Your task to perform on an android device: add a contact Image 0: 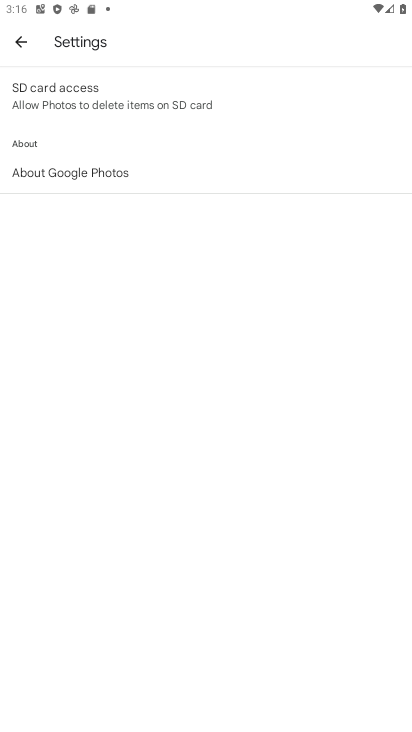
Step 0: press home button
Your task to perform on an android device: add a contact Image 1: 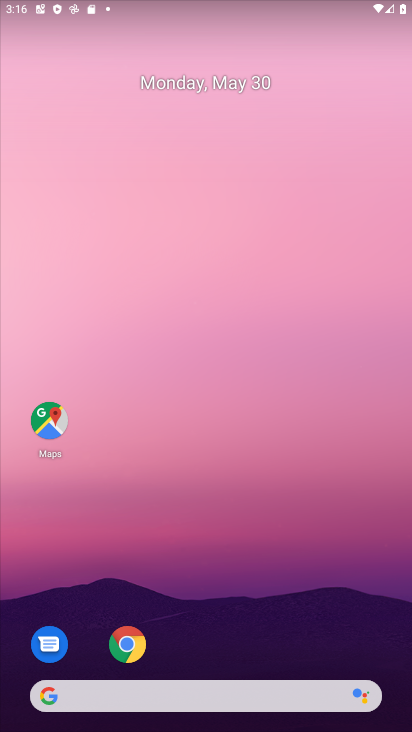
Step 1: drag from (242, 617) to (244, 19)
Your task to perform on an android device: add a contact Image 2: 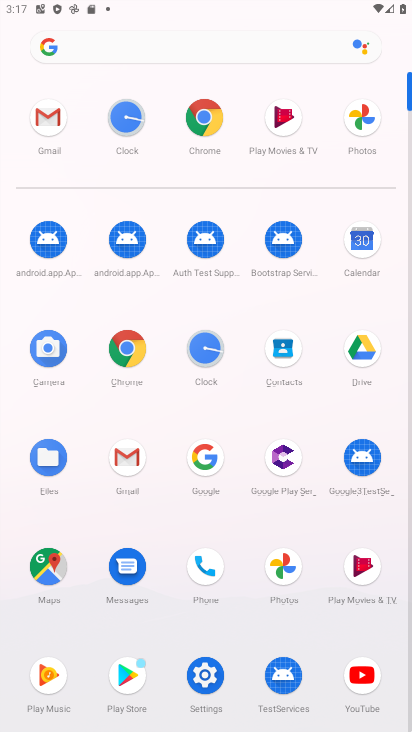
Step 2: click (279, 366)
Your task to perform on an android device: add a contact Image 3: 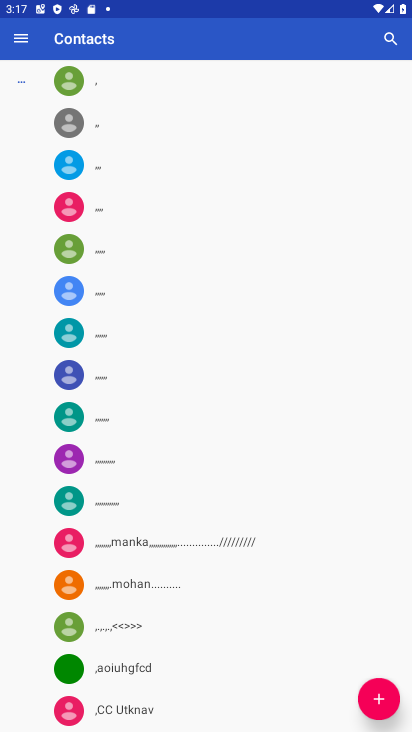
Step 3: task complete